Your task to perform on an android device: Search for "razer nari" on costco, select the first entry, and add it to the cart. Image 0: 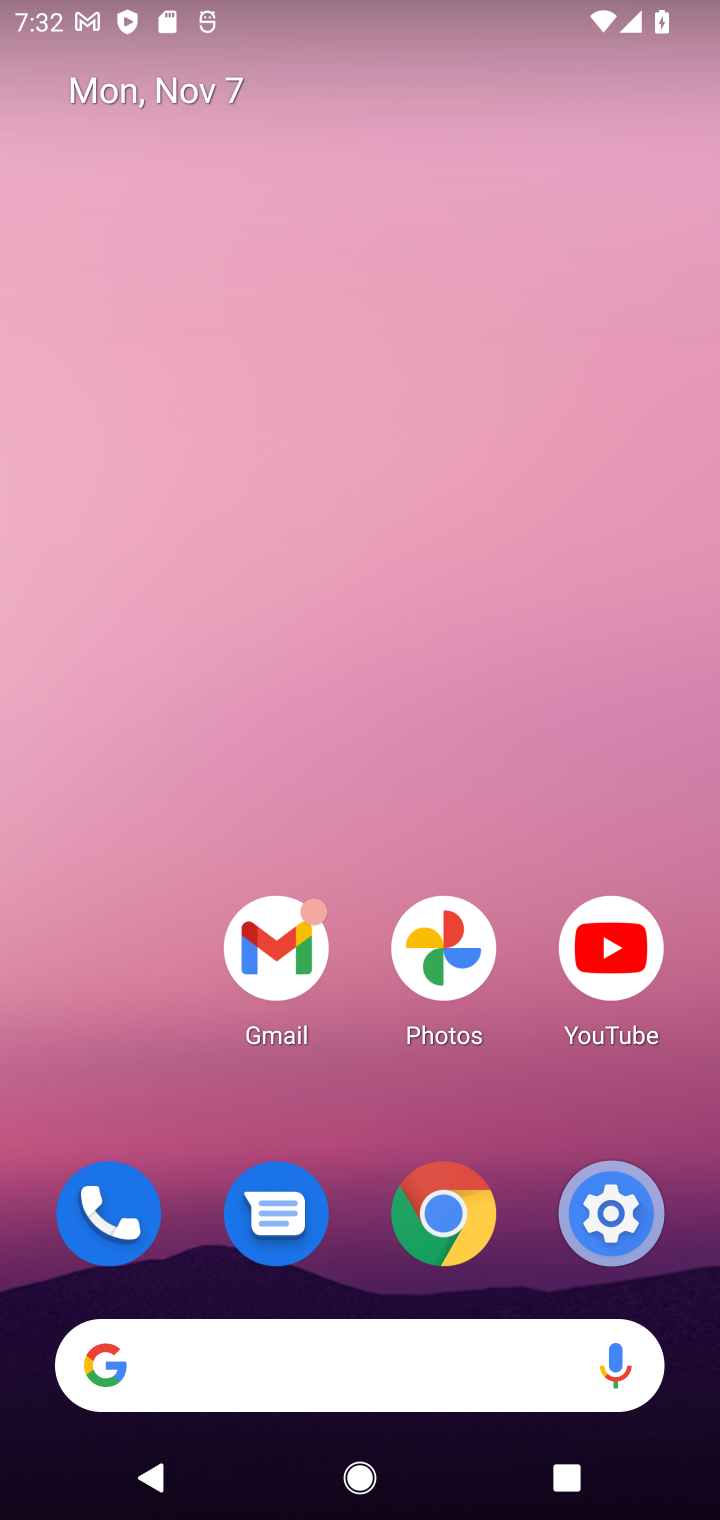
Step 0: click (427, 1224)
Your task to perform on an android device: Search for "razer nari" on costco, select the first entry, and add it to the cart. Image 1: 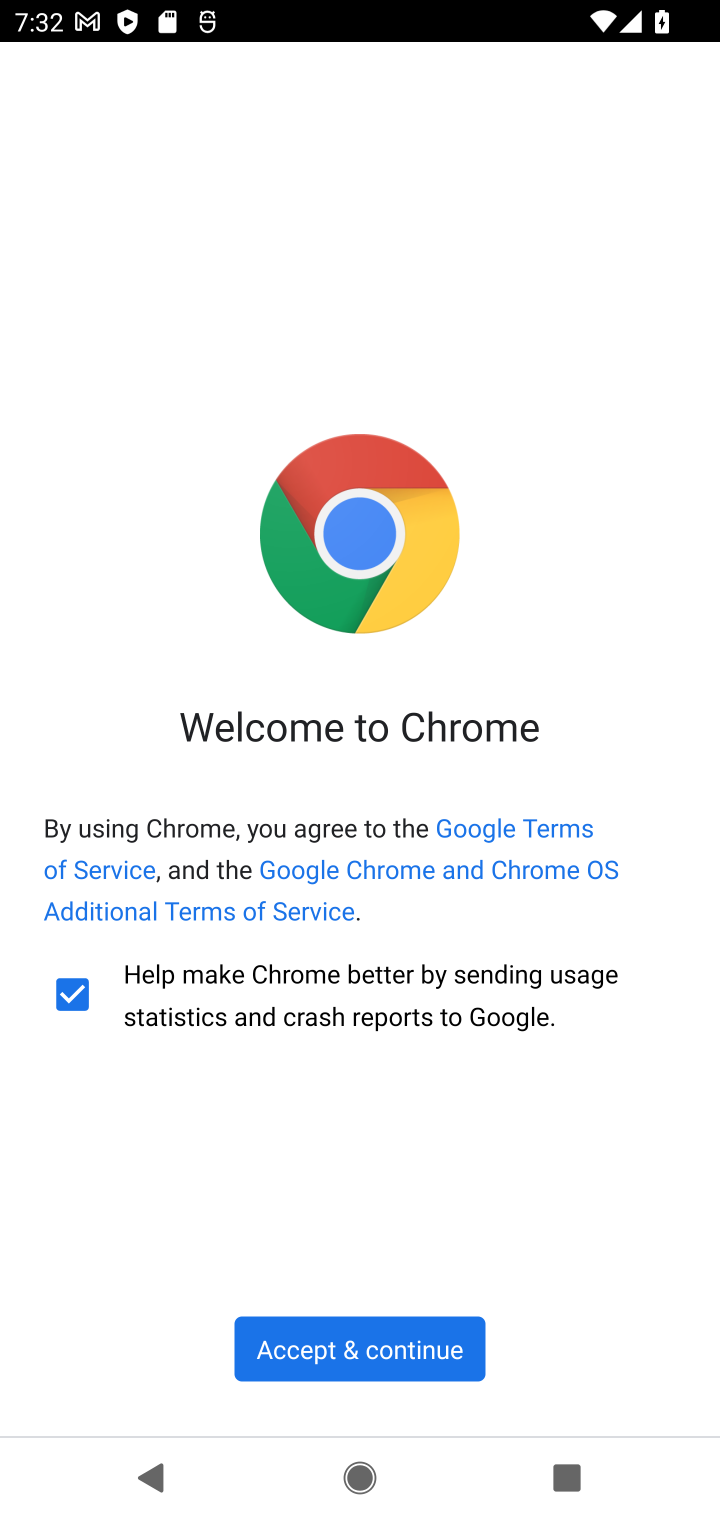
Step 1: click (341, 1353)
Your task to perform on an android device: Search for "razer nari" on costco, select the first entry, and add it to the cart. Image 2: 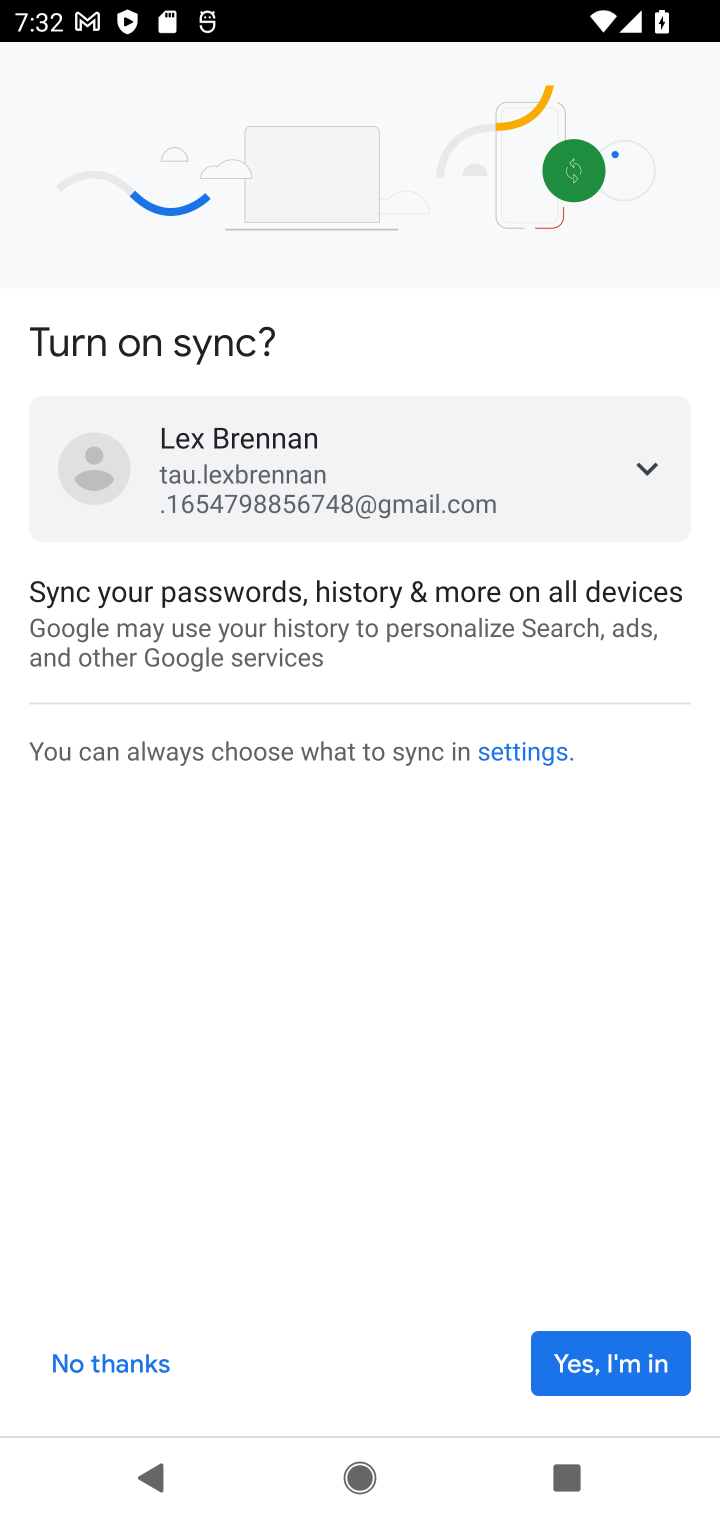
Step 2: click (636, 1372)
Your task to perform on an android device: Search for "razer nari" on costco, select the first entry, and add it to the cart. Image 3: 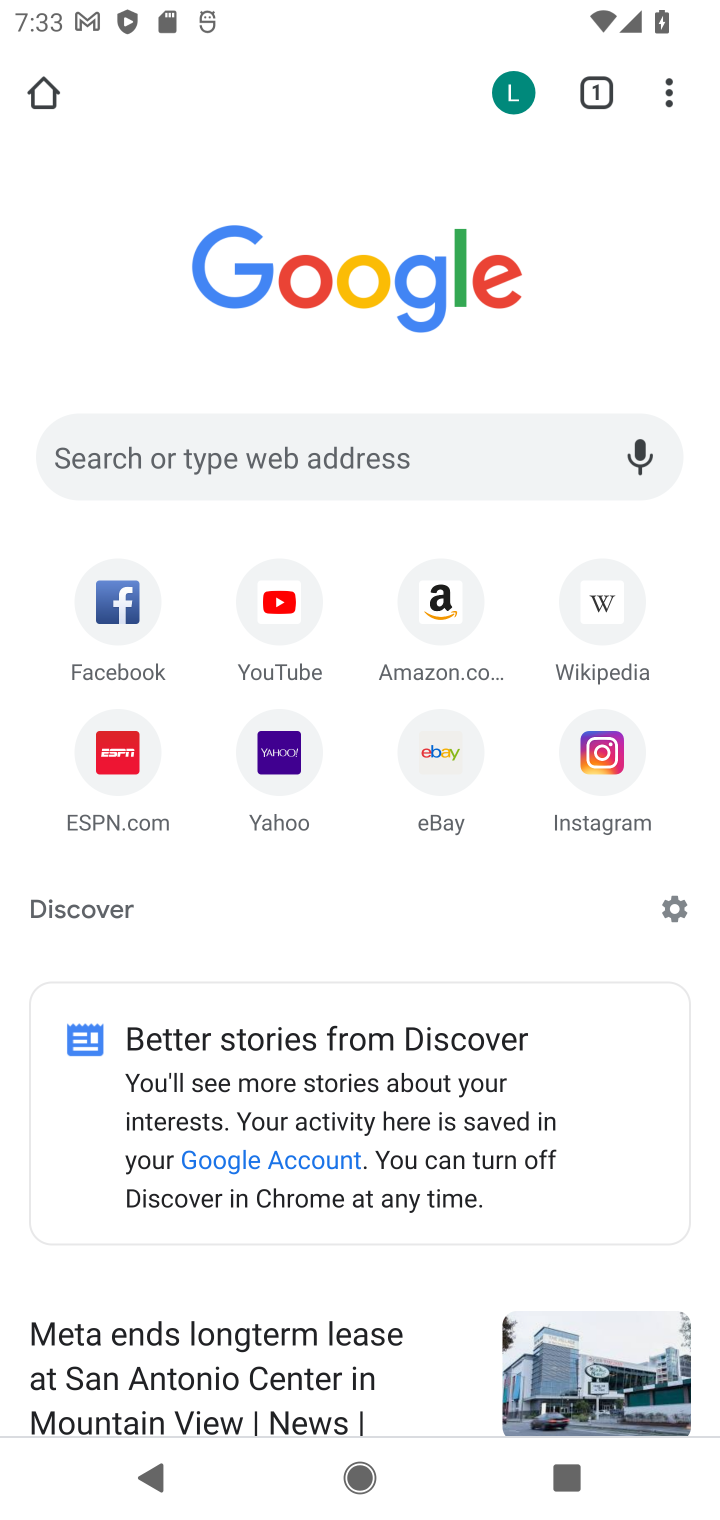
Step 3: click (311, 455)
Your task to perform on an android device: Search for "razer nari" on costco, select the first entry, and add it to the cart. Image 4: 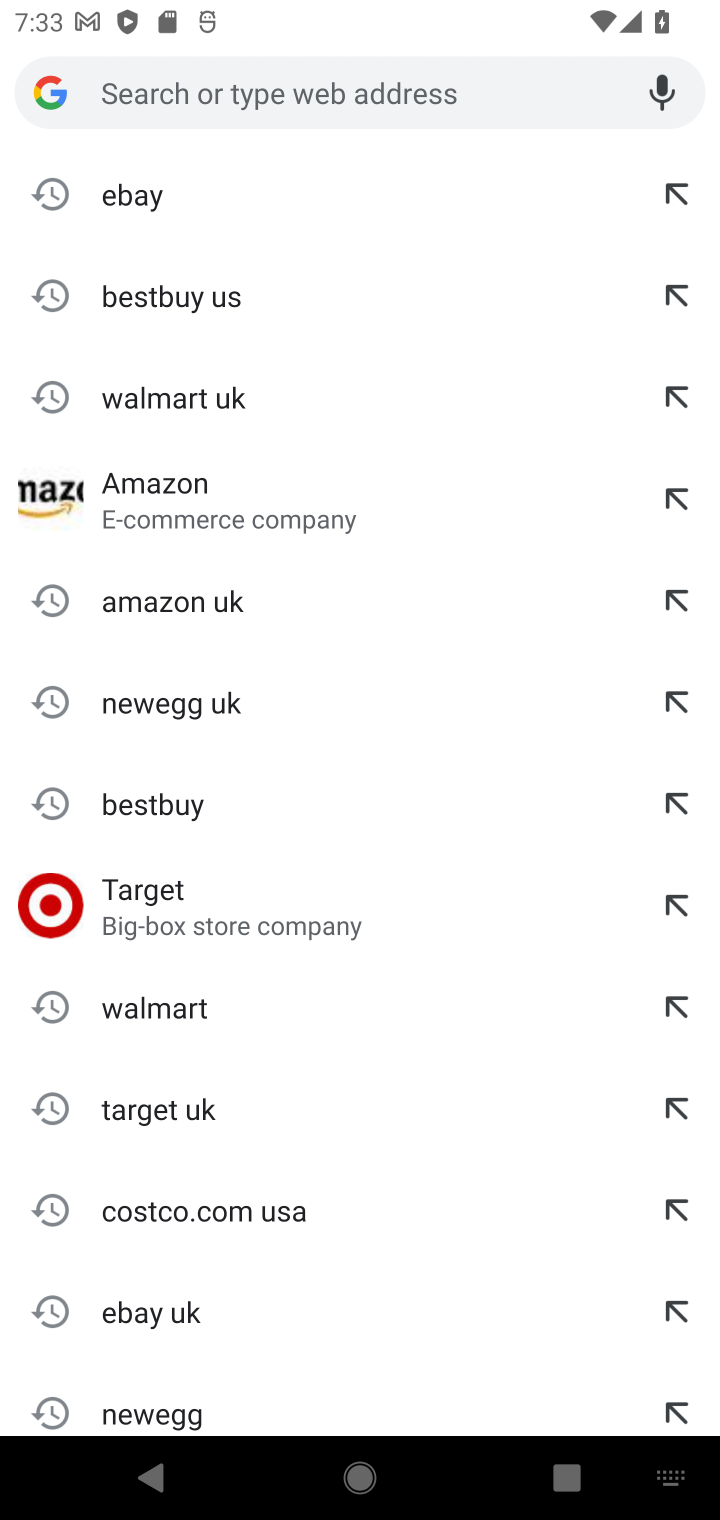
Step 4: type "costco.com"
Your task to perform on an android device: Search for "razer nari" on costco, select the first entry, and add it to the cart. Image 5: 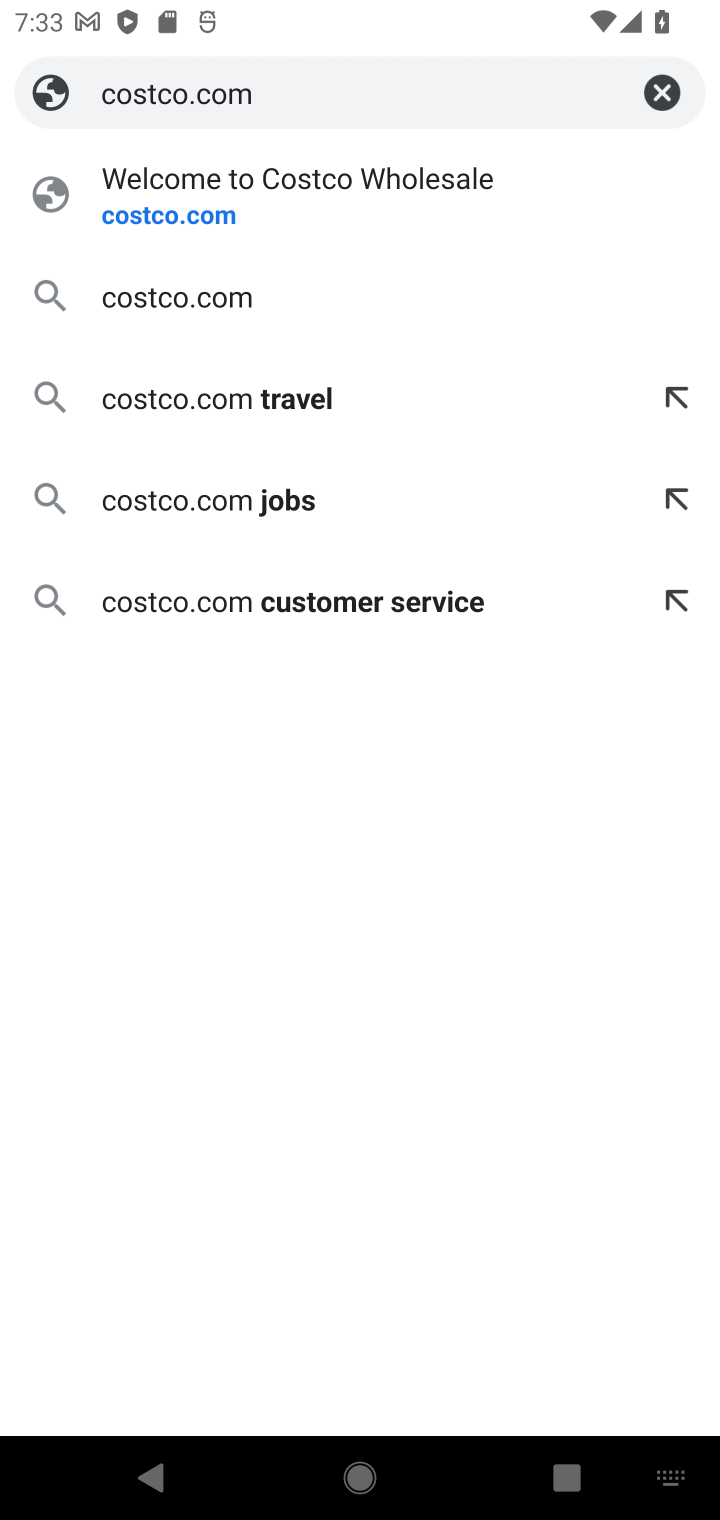
Step 5: click (137, 231)
Your task to perform on an android device: Search for "razer nari" on costco, select the first entry, and add it to the cart. Image 6: 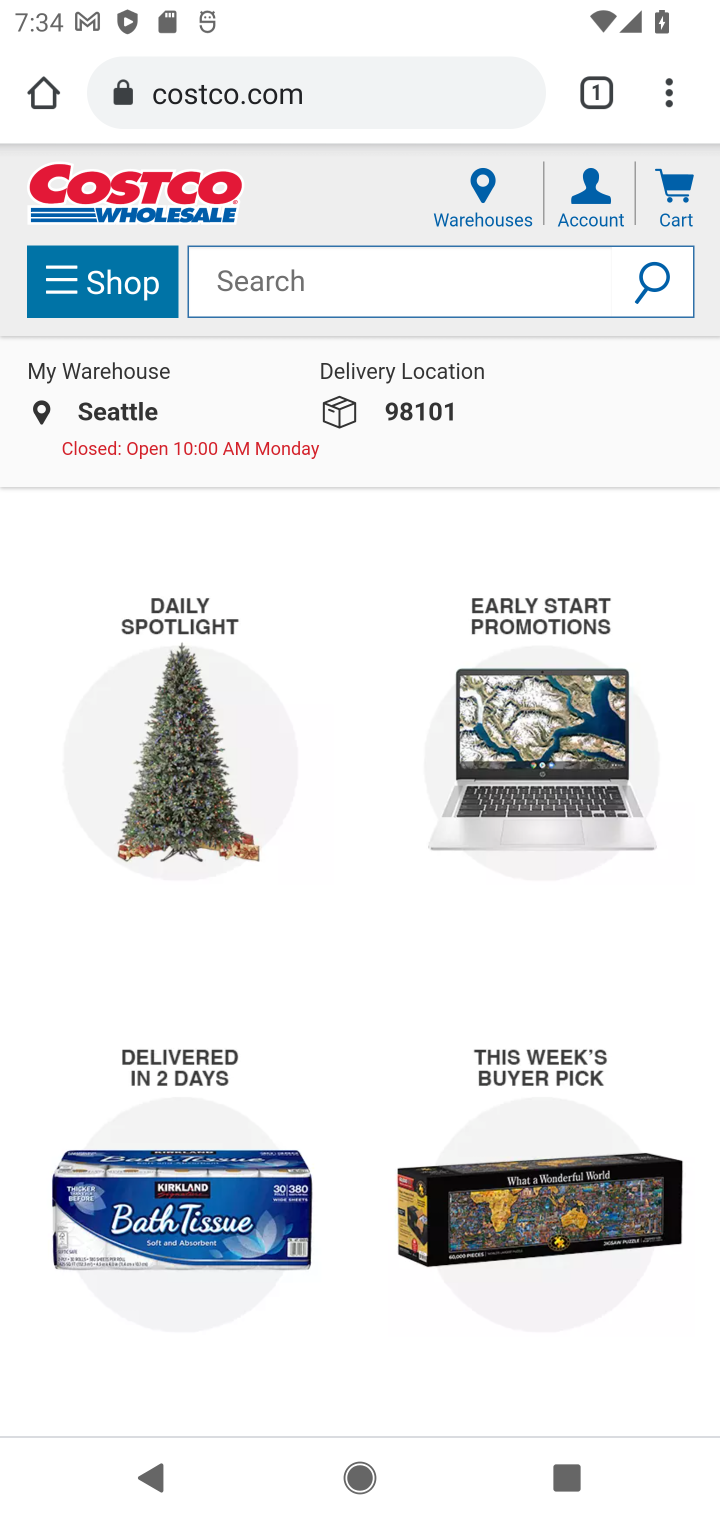
Step 6: click (263, 285)
Your task to perform on an android device: Search for "razer nari" on costco, select the first entry, and add it to the cart. Image 7: 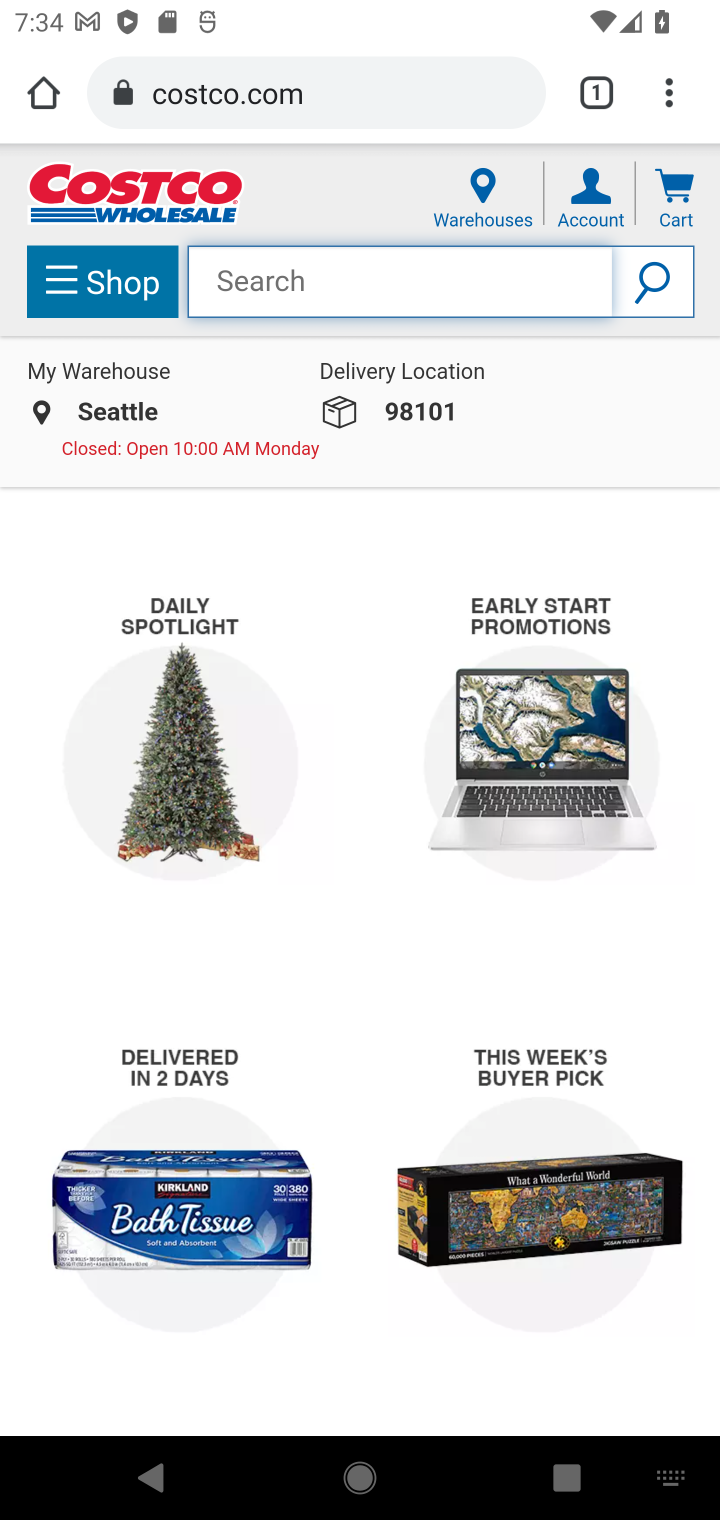
Step 7: type "razer nari"
Your task to perform on an android device: Search for "razer nari" on costco, select the first entry, and add it to the cart. Image 8: 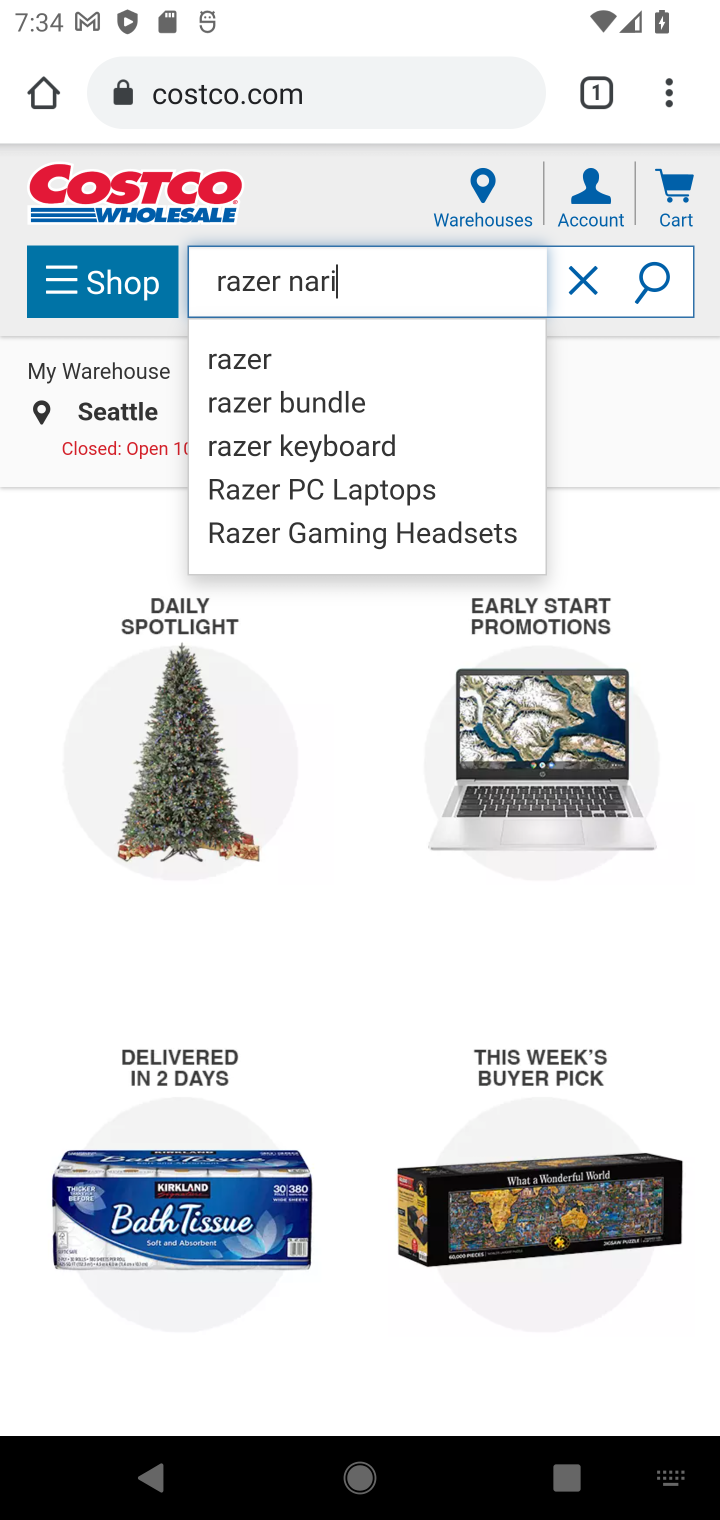
Step 8: click (654, 285)
Your task to perform on an android device: Search for "razer nari" on costco, select the first entry, and add it to the cart. Image 9: 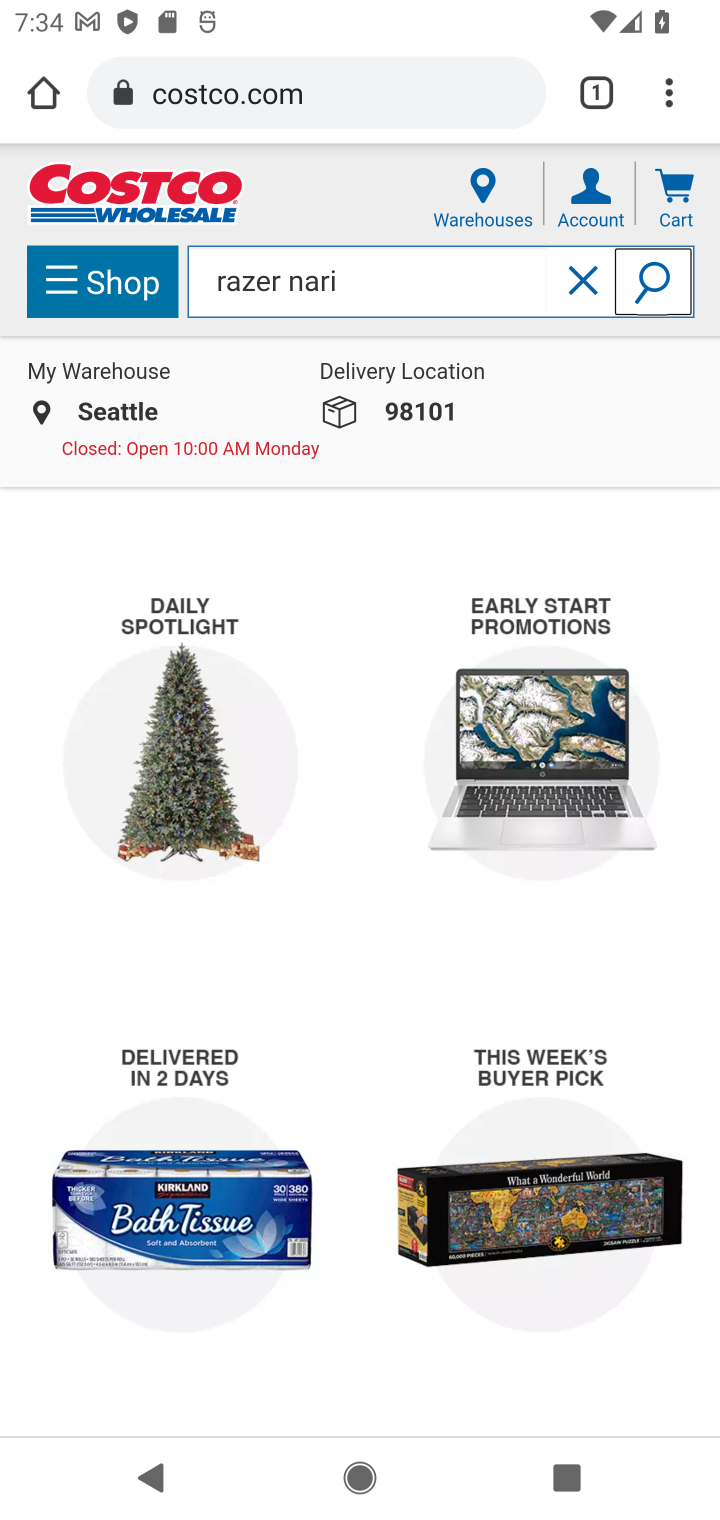
Step 9: click (648, 282)
Your task to perform on an android device: Search for "razer nari" on costco, select the first entry, and add it to the cart. Image 10: 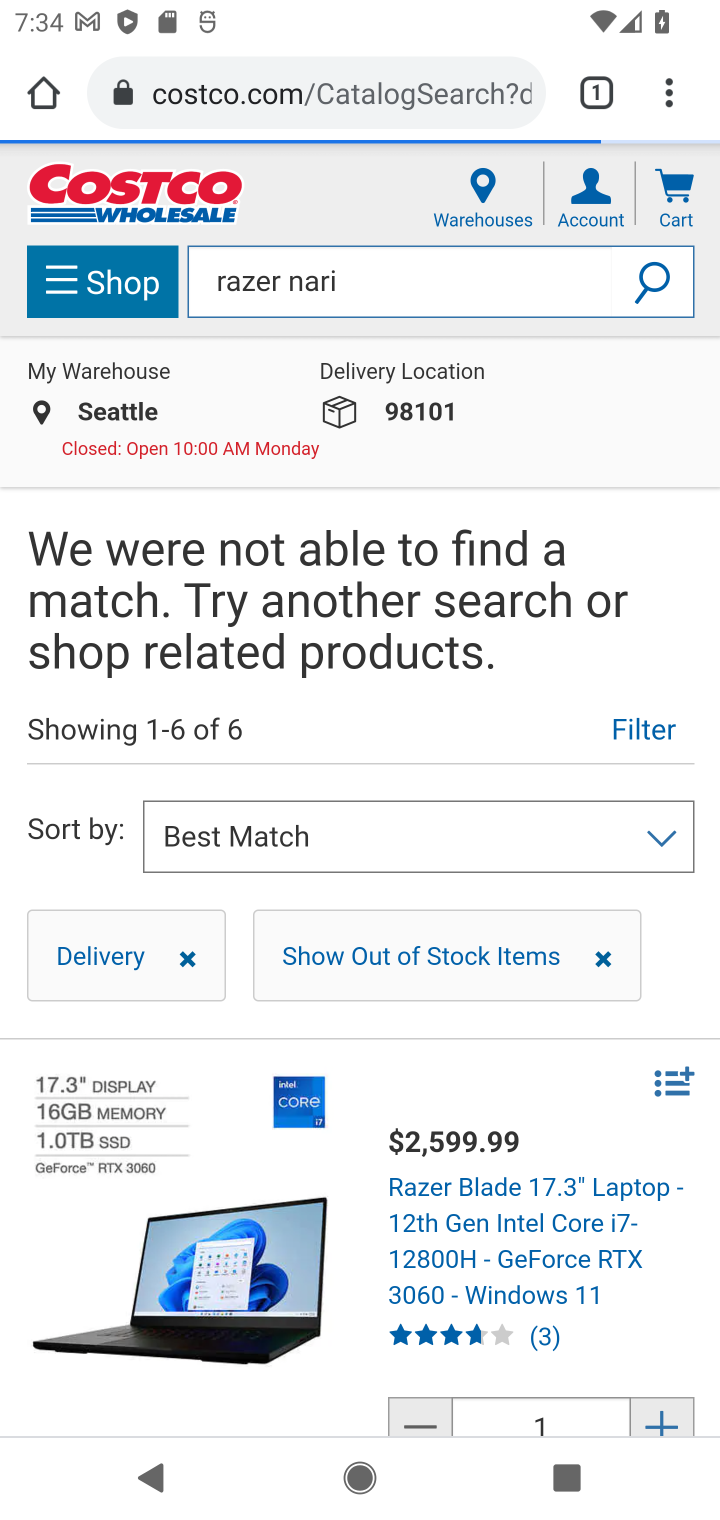
Step 10: task complete